Your task to perform on an android device: open app "Google Sheets" (install if not already installed) Image 0: 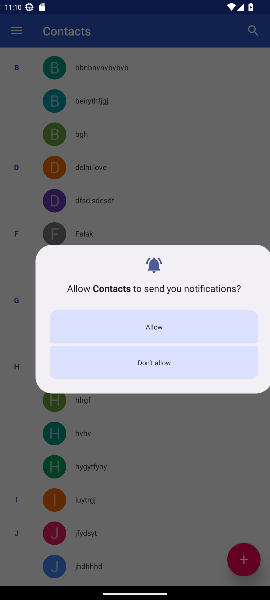
Step 0: press home button
Your task to perform on an android device: open app "Google Sheets" (install if not already installed) Image 1: 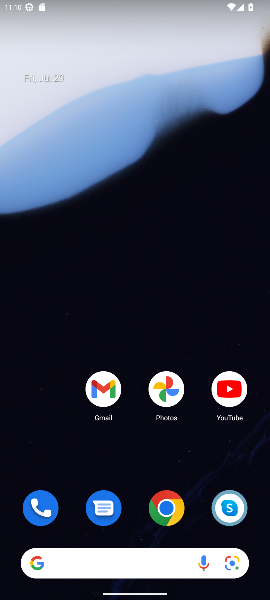
Step 1: drag from (136, 483) to (159, 107)
Your task to perform on an android device: open app "Google Sheets" (install if not already installed) Image 2: 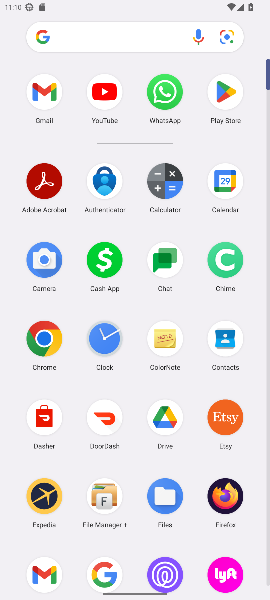
Step 2: click (217, 87)
Your task to perform on an android device: open app "Google Sheets" (install if not already installed) Image 3: 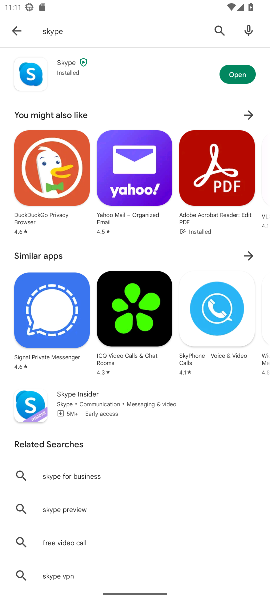
Step 3: click (218, 31)
Your task to perform on an android device: open app "Google Sheets" (install if not already installed) Image 4: 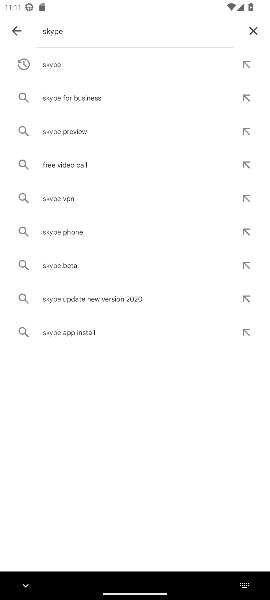
Step 4: click (252, 25)
Your task to perform on an android device: open app "Google Sheets" (install if not already installed) Image 5: 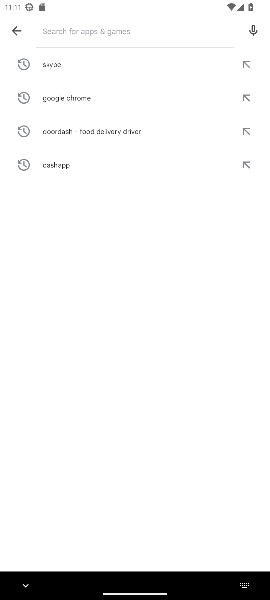
Step 5: type "Google sheets"
Your task to perform on an android device: open app "Google Sheets" (install if not already installed) Image 6: 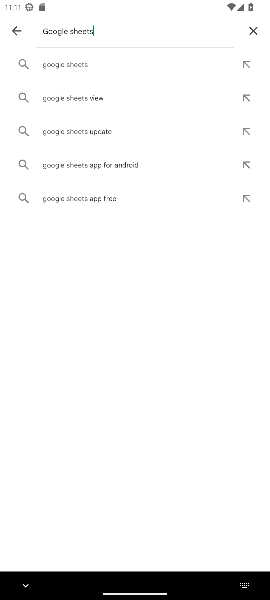
Step 6: click (162, 67)
Your task to perform on an android device: open app "Google Sheets" (install if not already installed) Image 7: 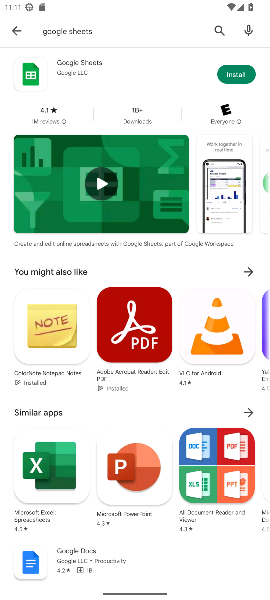
Step 7: click (241, 70)
Your task to perform on an android device: open app "Google Sheets" (install if not already installed) Image 8: 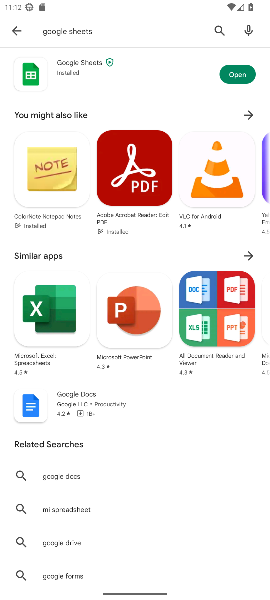
Step 8: click (242, 76)
Your task to perform on an android device: open app "Google Sheets" (install if not already installed) Image 9: 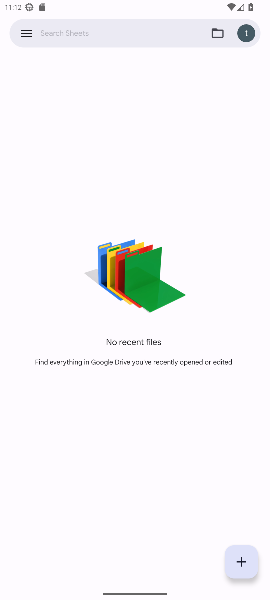
Step 9: task complete